Your task to perform on an android device: add a label to a message in the gmail app Image 0: 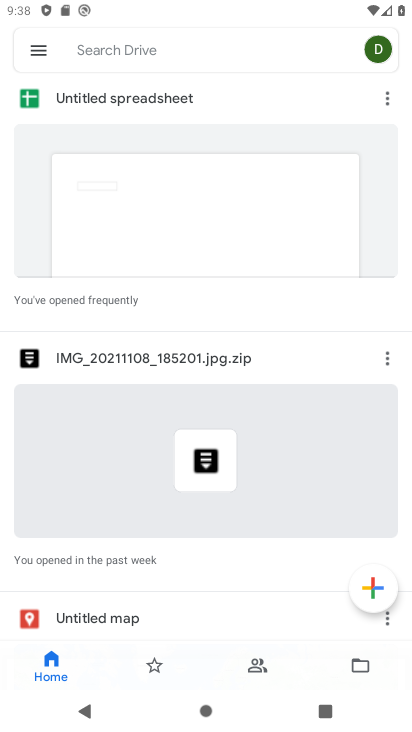
Step 0: press home button
Your task to perform on an android device: add a label to a message in the gmail app Image 1: 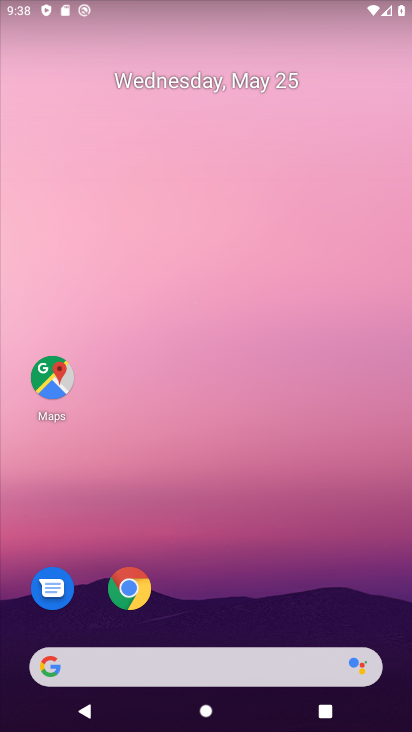
Step 1: drag from (243, 566) to (246, 29)
Your task to perform on an android device: add a label to a message in the gmail app Image 2: 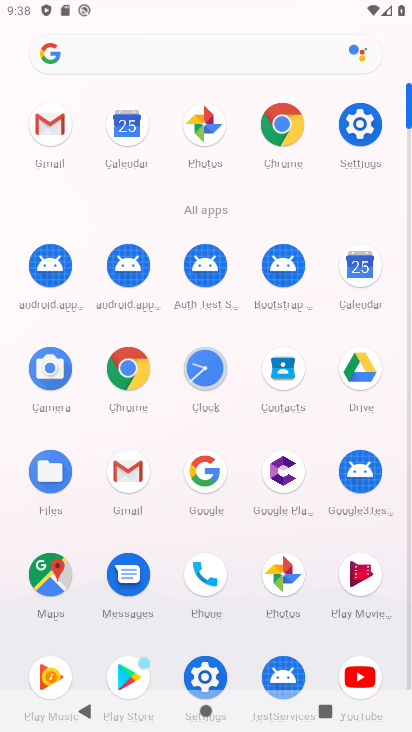
Step 2: click (128, 477)
Your task to perform on an android device: add a label to a message in the gmail app Image 3: 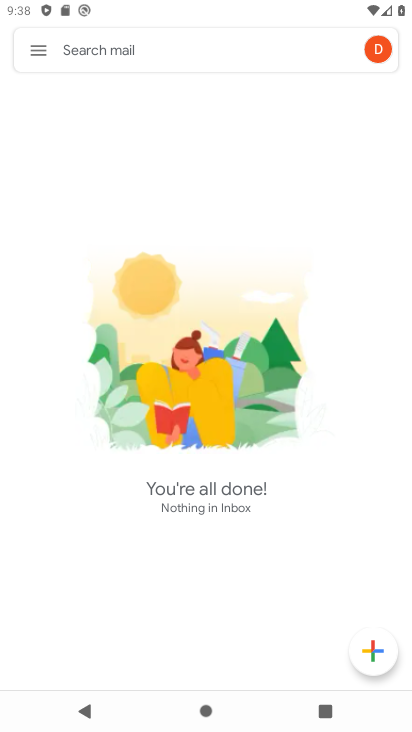
Step 3: click (42, 48)
Your task to perform on an android device: add a label to a message in the gmail app Image 4: 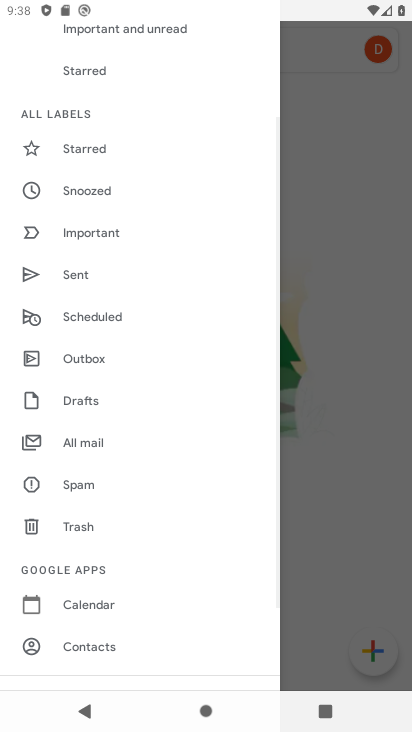
Step 4: click (130, 443)
Your task to perform on an android device: add a label to a message in the gmail app Image 5: 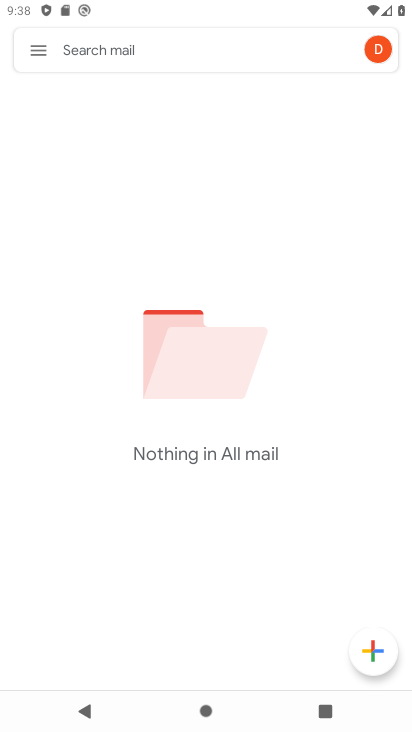
Step 5: task complete